Your task to perform on an android device: Open Wikipedia Image 0: 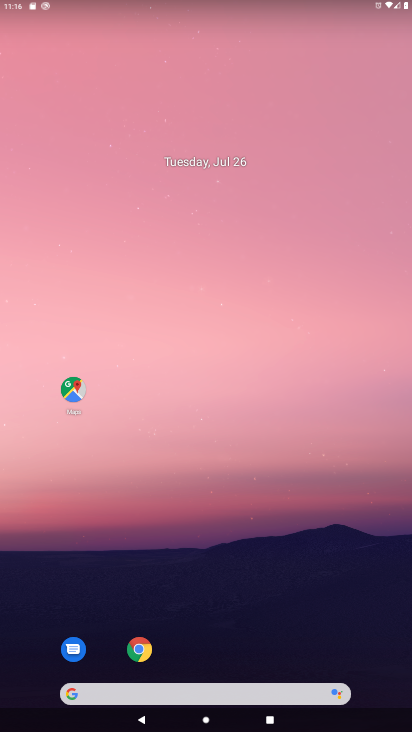
Step 0: click (146, 658)
Your task to perform on an android device: Open Wikipedia Image 1: 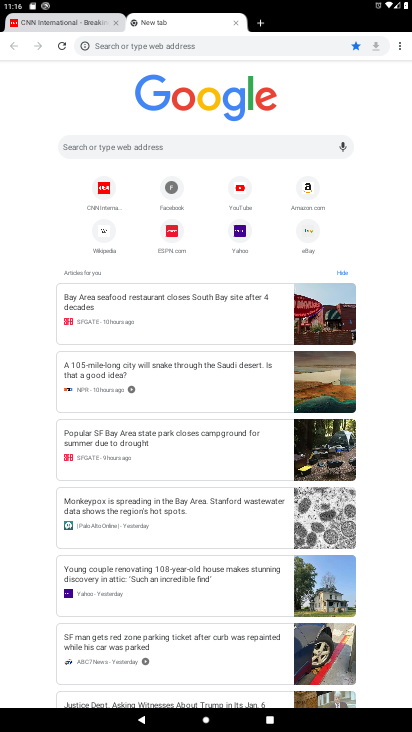
Step 1: click (101, 237)
Your task to perform on an android device: Open Wikipedia Image 2: 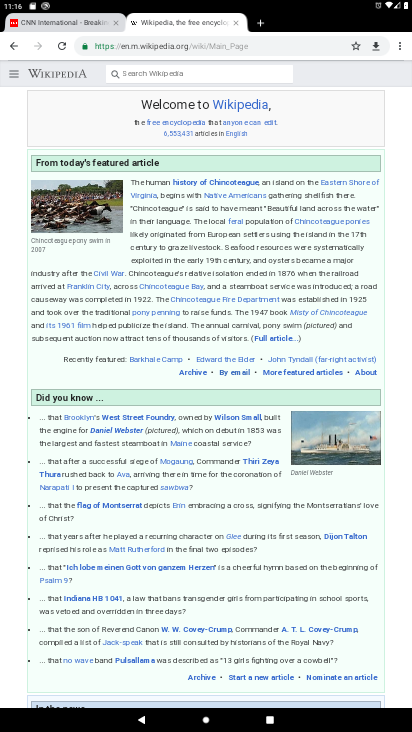
Step 2: task complete